Your task to perform on an android device: Turn off the flashlight Image 0: 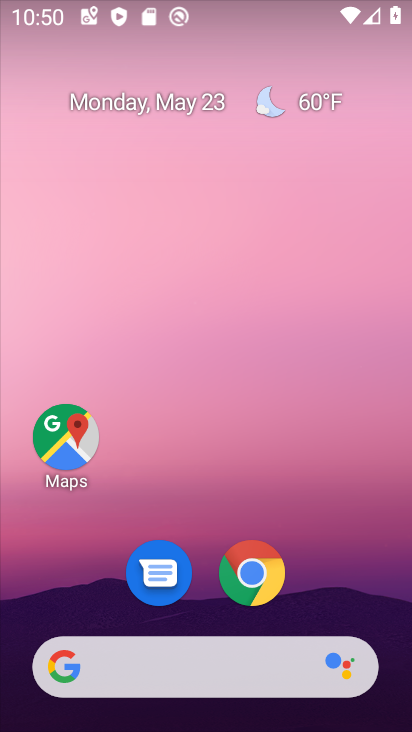
Step 0: drag from (330, 539) to (245, 0)
Your task to perform on an android device: Turn off the flashlight Image 1: 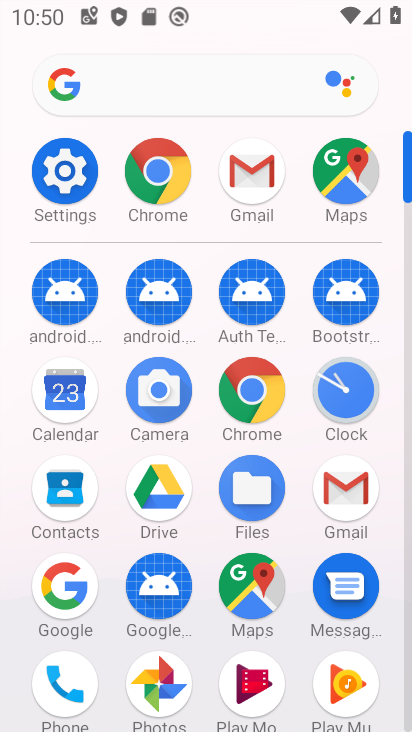
Step 1: click (67, 166)
Your task to perform on an android device: Turn off the flashlight Image 2: 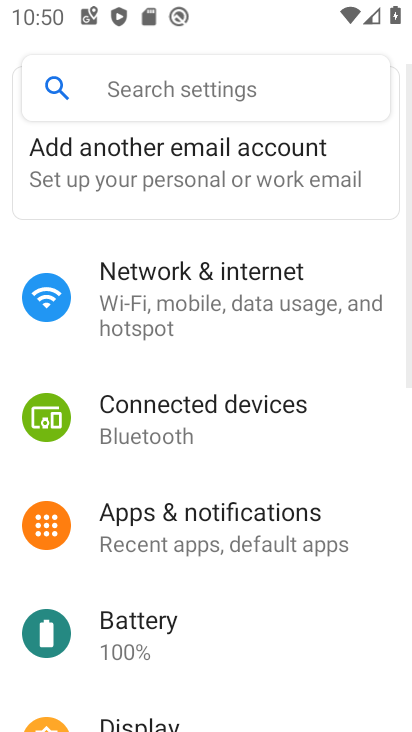
Step 2: drag from (297, 248) to (311, 596)
Your task to perform on an android device: Turn off the flashlight Image 3: 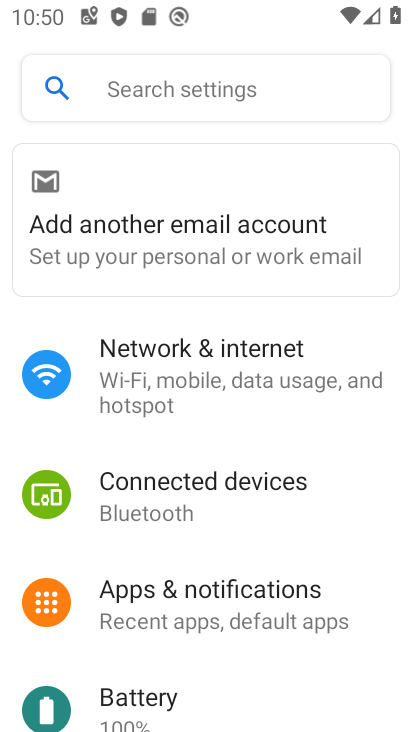
Step 3: click (243, 390)
Your task to perform on an android device: Turn off the flashlight Image 4: 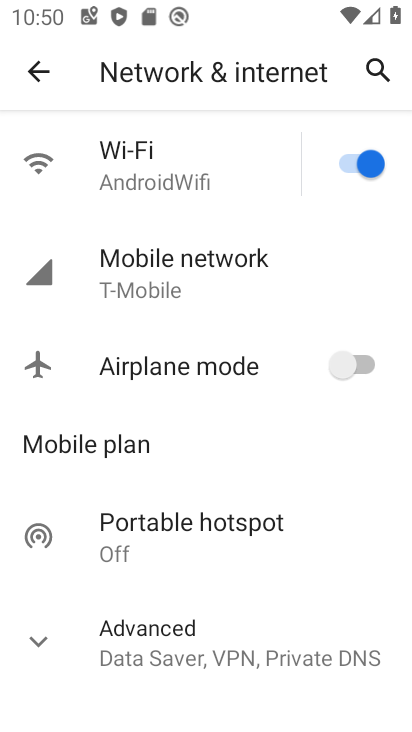
Step 4: drag from (203, 549) to (228, 100)
Your task to perform on an android device: Turn off the flashlight Image 5: 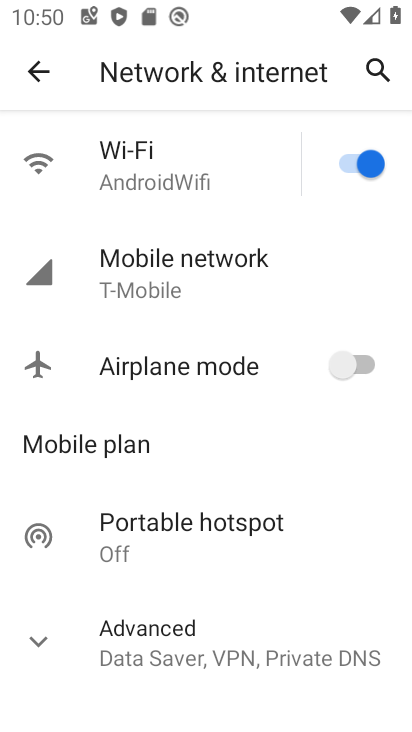
Step 5: click (58, 642)
Your task to perform on an android device: Turn off the flashlight Image 6: 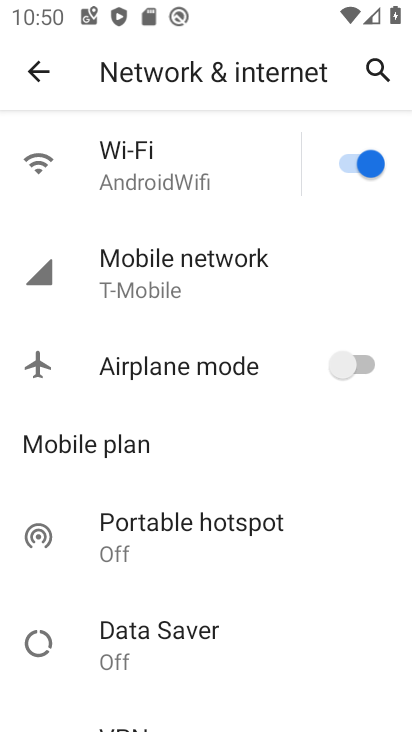
Step 6: task complete